Your task to perform on an android device: snooze an email in the gmail app Image 0: 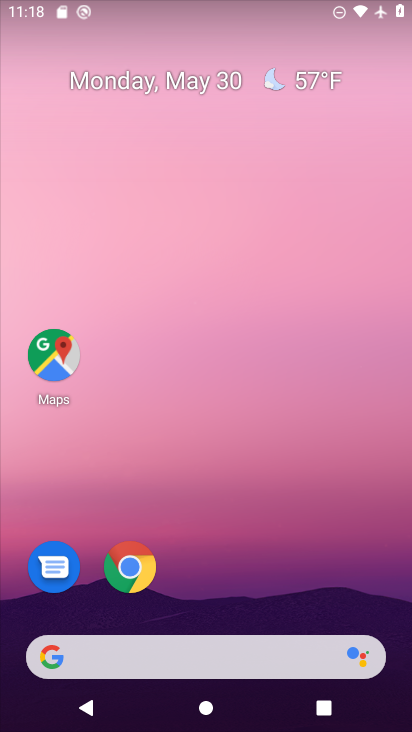
Step 0: drag from (215, 587) to (224, 265)
Your task to perform on an android device: snooze an email in the gmail app Image 1: 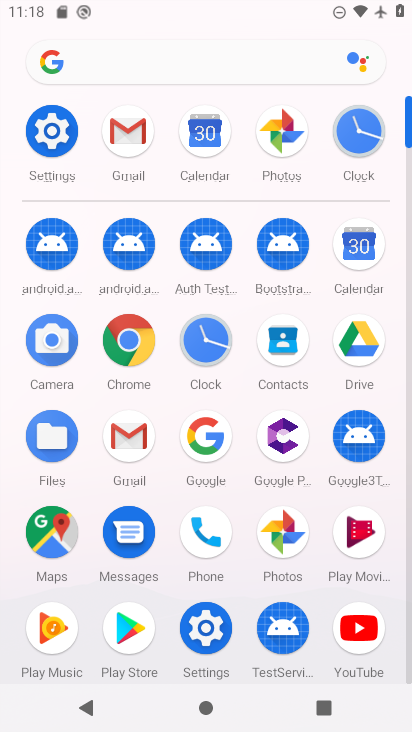
Step 1: click (137, 134)
Your task to perform on an android device: snooze an email in the gmail app Image 2: 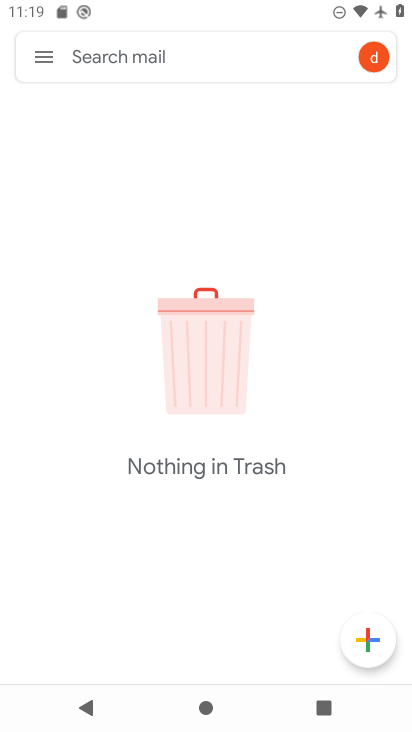
Step 2: click (49, 64)
Your task to perform on an android device: snooze an email in the gmail app Image 3: 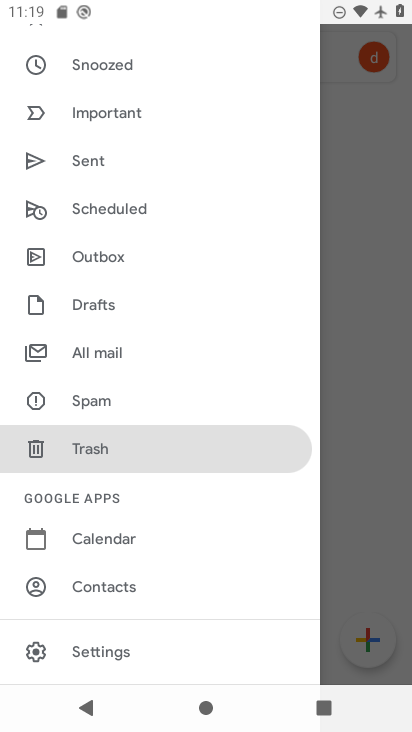
Step 3: drag from (129, 102) to (144, 426)
Your task to perform on an android device: snooze an email in the gmail app Image 4: 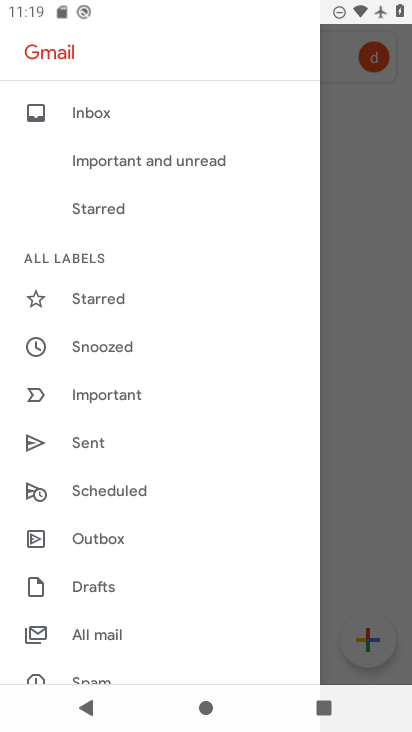
Step 4: click (111, 121)
Your task to perform on an android device: snooze an email in the gmail app Image 5: 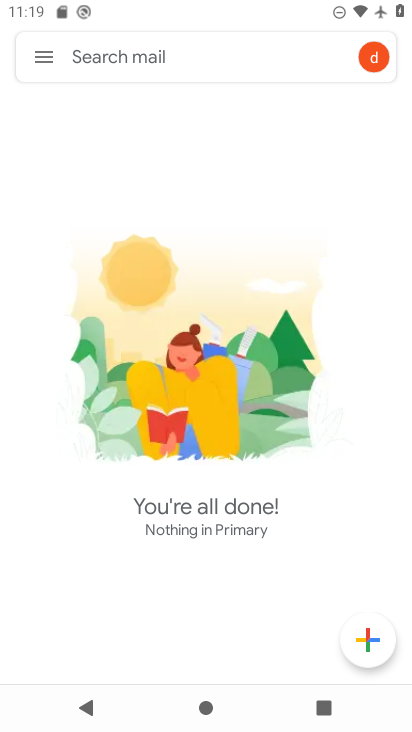
Step 5: click (35, 63)
Your task to perform on an android device: snooze an email in the gmail app Image 6: 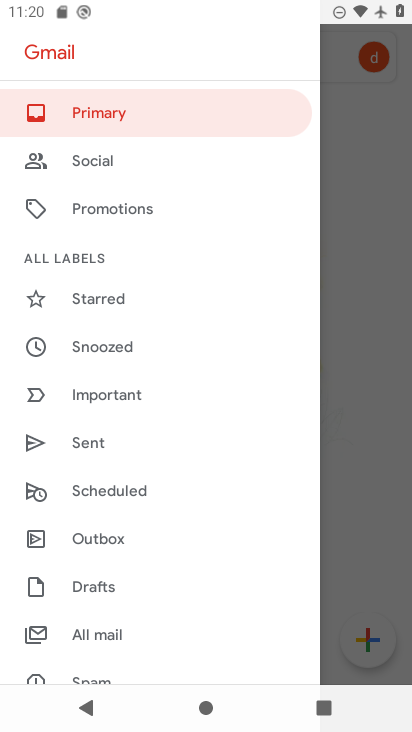
Step 6: click (121, 636)
Your task to perform on an android device: snooze an email in the gmail app Image 7: 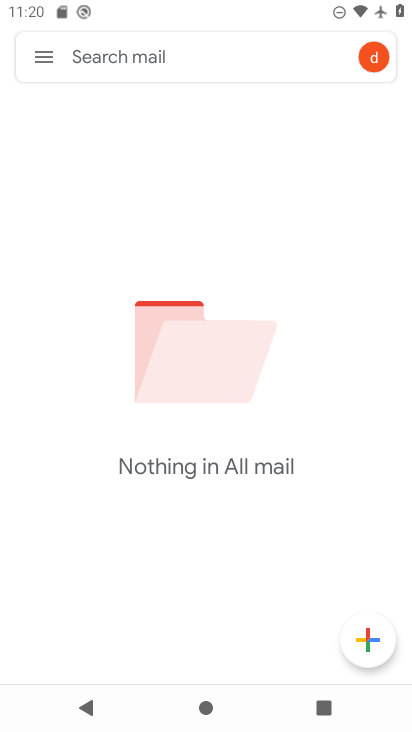
Step 7: click (45, 57)
Your task to perform on an android device: snooze an email in the gmail app Image 8: 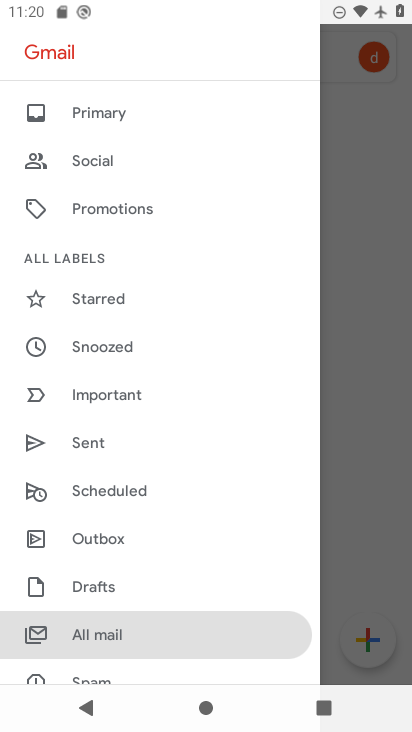
Step 8: click (361, 268)
Your task to perform on an android device: snooze an email in the gmail app Image 9: 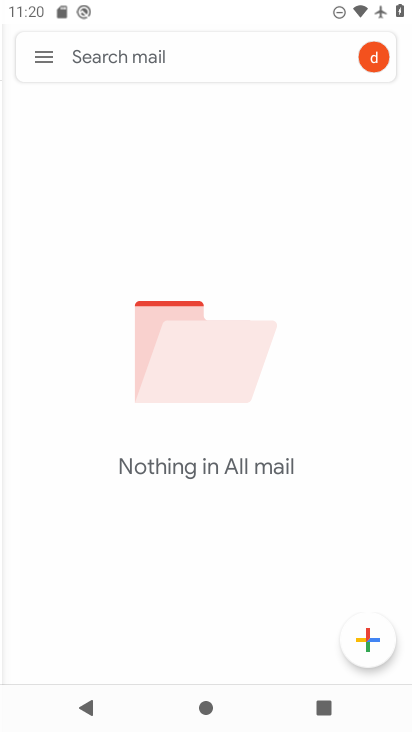
Step 9: task complete